Your task to perform on an android device: open a bookmark in the chrome app Image 0: 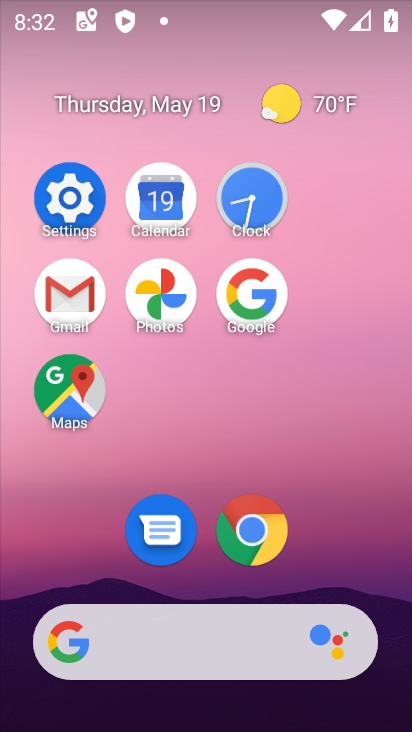
Step 0: click (244, 514)
Your task to perform on an android device: open a bookmark in the chrome app Image 1: 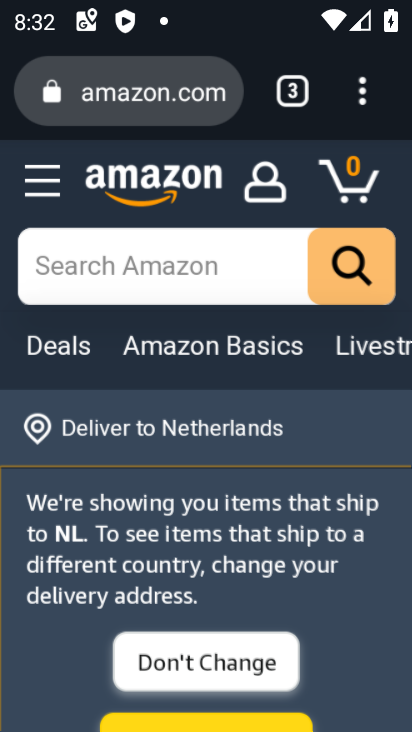
Step 1: click (339, 95)
Your task to perform on an android device: open a bookmark in the chrome app Image 2: 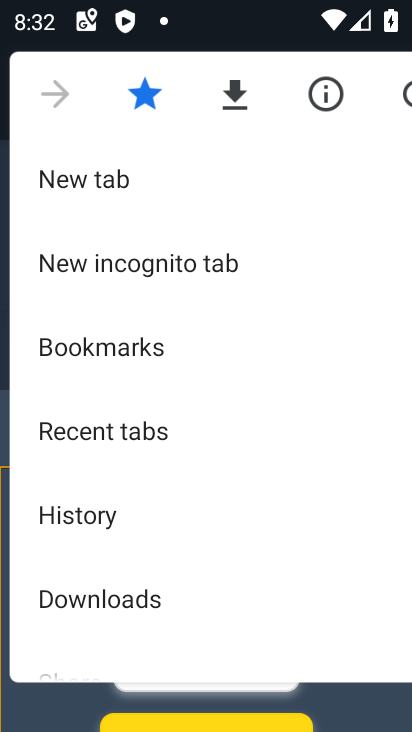
Step 2: drag from (197, 427) to (188, 274)
Your task to perform on an android device: open a bookmark in the chrome app Image 3: 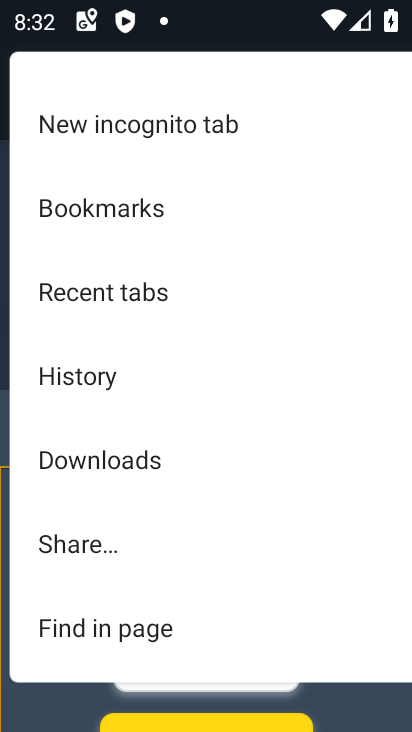
Step 3: click (166, 177)
Your task to perform on an android device: open a bookmark in the chrome app Image 4: 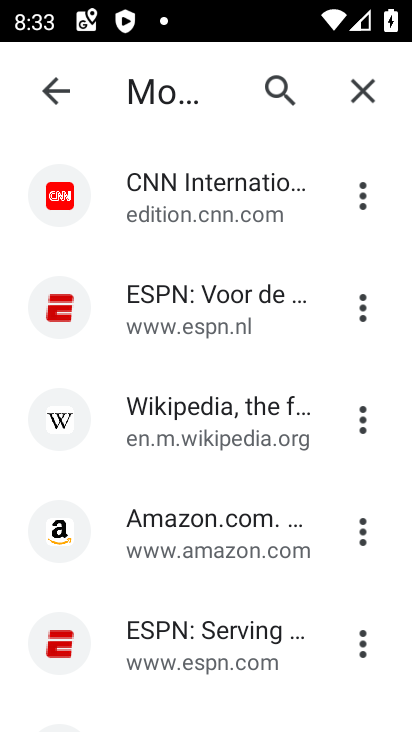
Step 4: task complete